Your task to perform on an android device: Find coffee shops on Maps Image 0: 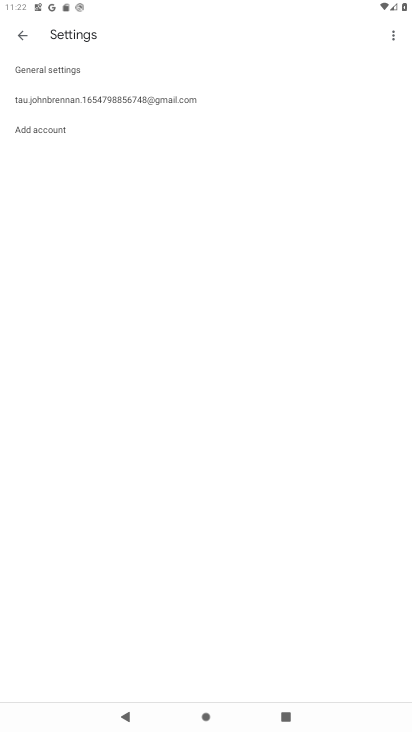
Step 0: press home button
Your task to perform on an android device: Find coffee shops on Maps Image 1: 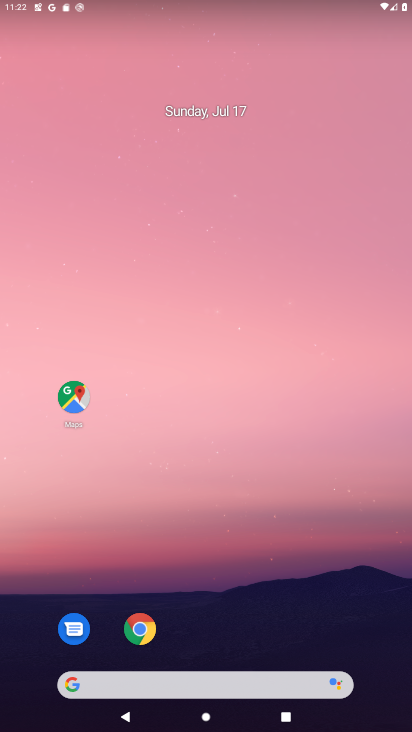
Step 1: click (71, 399)
Your task to perform on an android device: Find coffee shops on Maps Image 2: 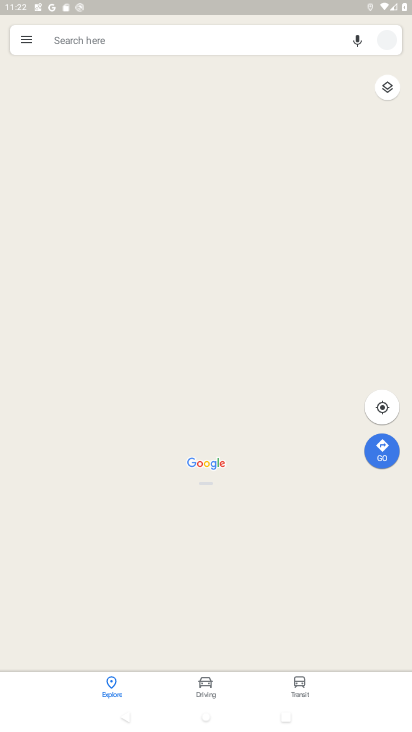
Step 2: click (204, 42)
Your task to perform on an android device: Find coffee shops on Maps Image 3: 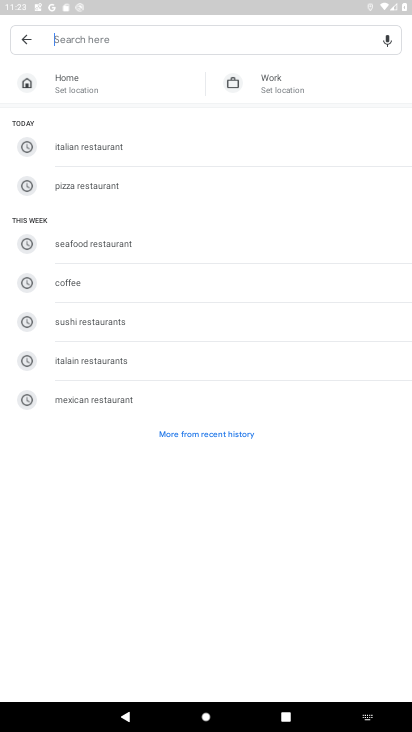
Step 3: type "coffee"
Your task to perform on an android device: Find coffee shops on Maps Image 4: 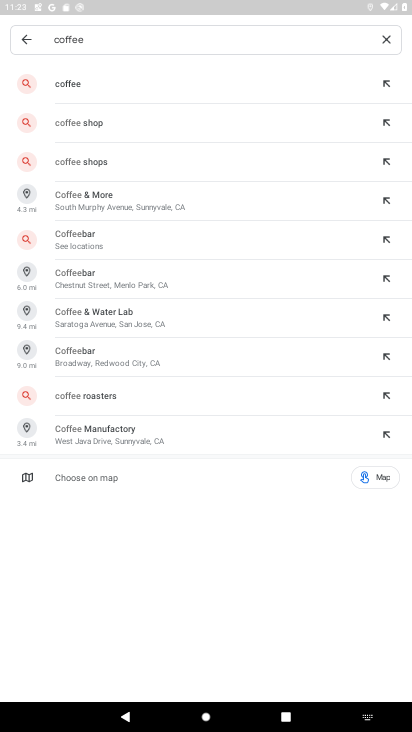
Step 4: click (79, 92)
Your task to perform on an android device: Find coffee shops on Maps Image 5: 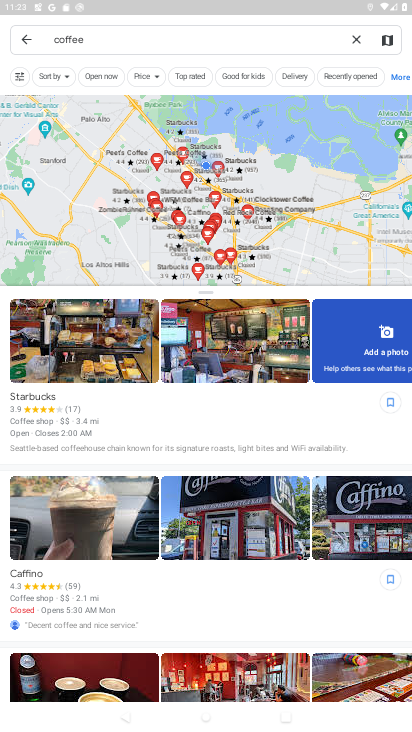
Step 5: task complete